Your task to perform on an android device: open app "Gboard" Image 0: 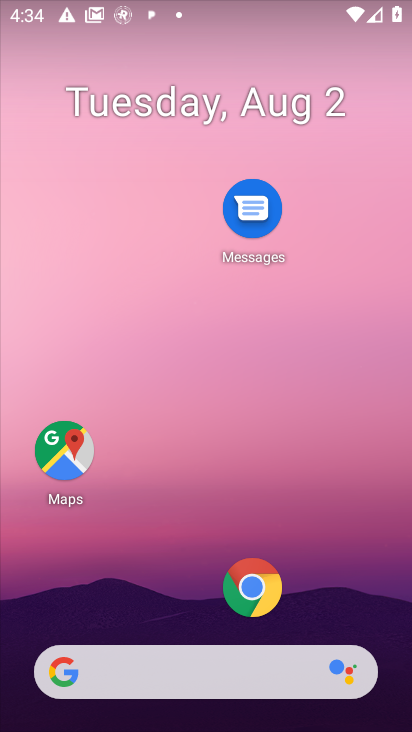
Step 0: drag from (181, 601) to (191, 222)
Your task to perform on an android device: open app "Gboard" Image 1: 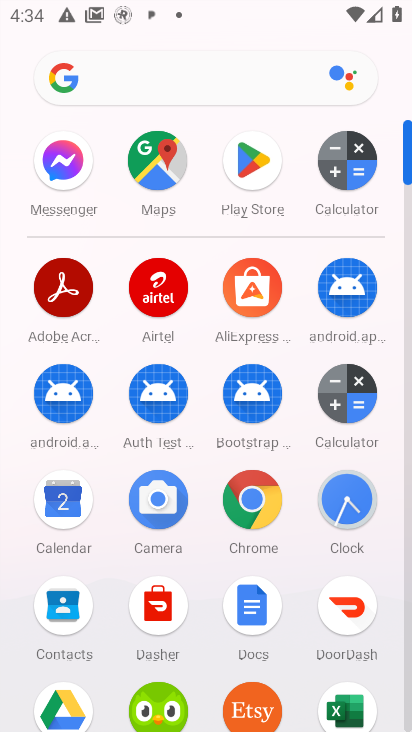
Step 1: click (246, 170)
Your task to perform on an android device: open app "Gboard" Image 2: 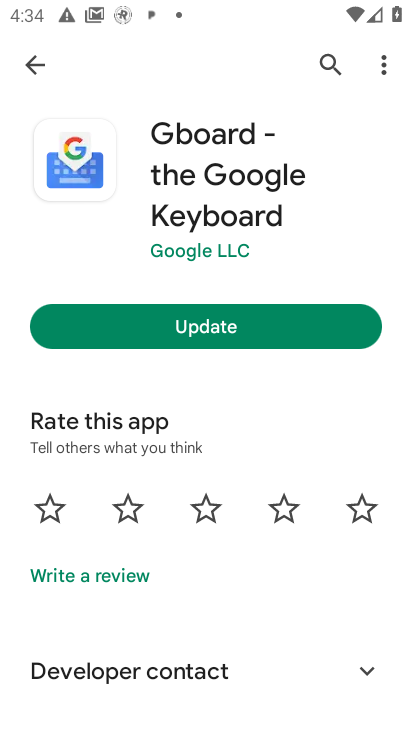
Step 2: click (261, 311)
Your task to perform on an android device: open app "Gboard" Image 3: 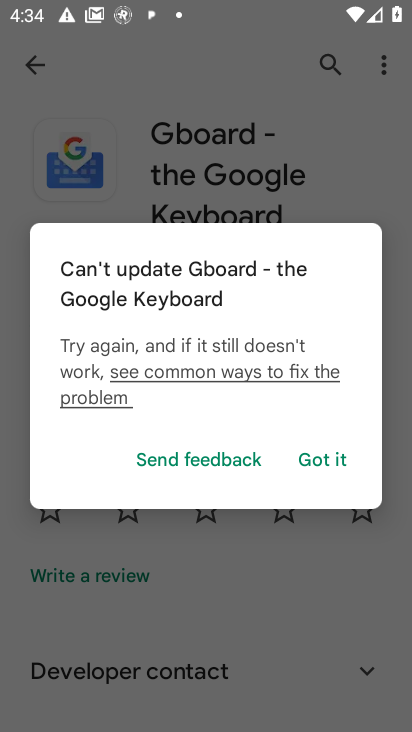
Step 3: click (307, 449)
Your task to perform on an android device: open app "Gboard" Image 4: 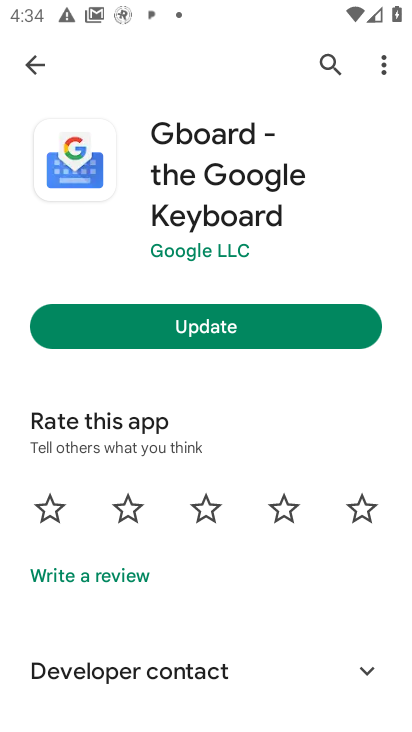
Step 4: click (325, 327)
Your task to perform on an android device: open app "Gboard" Image 5: 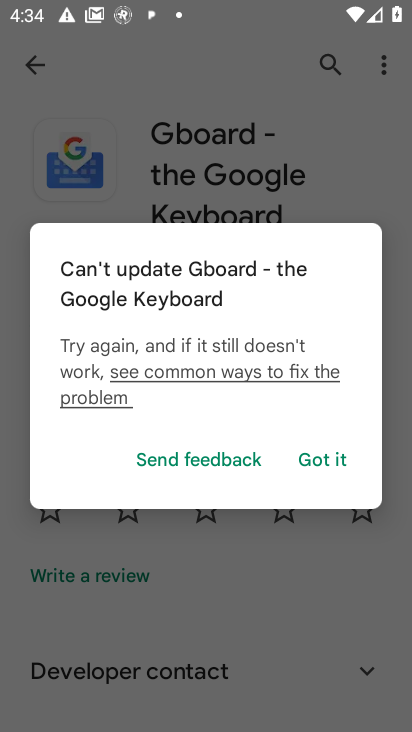
Step 5: click (320, 472)
Your task to perform on an android device: open app "Gboard" Image 6: 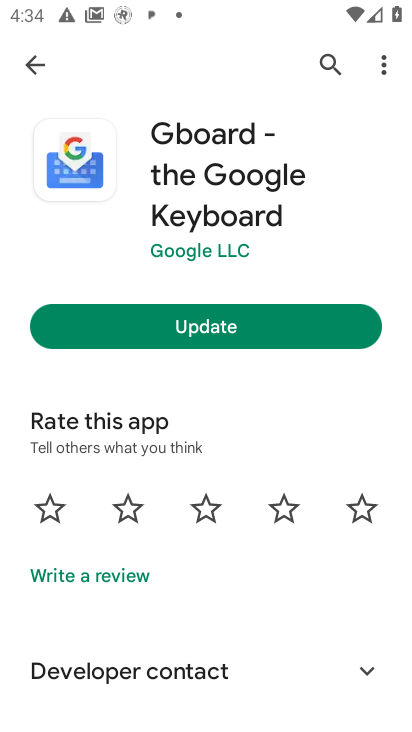
Step 6: task complete